Your task to perform on an android device: choose inbox layout in the gmail app Image 0: 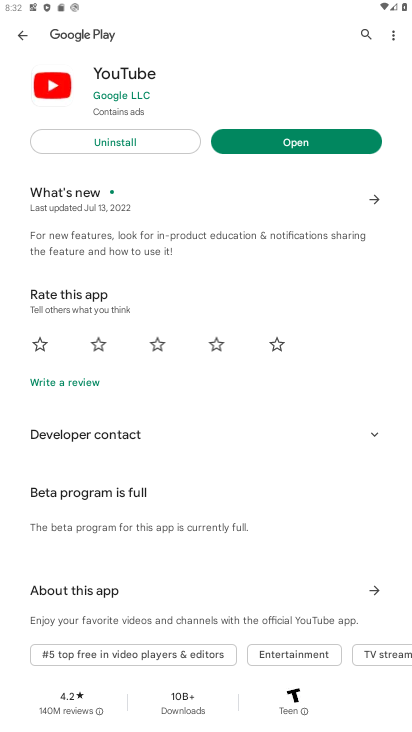
Step 0: press home button
Your task to perform on an android device: choose inbox layout in the gmail app Image 1: 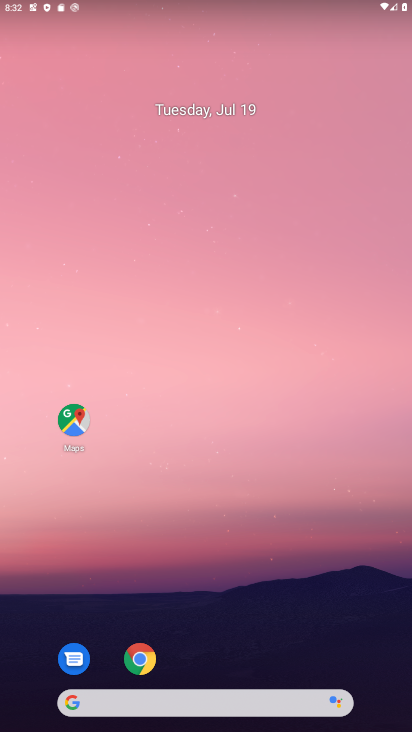
Step 1: drag from (157, 687) to (152, 202)
Your task to perform on an android device: choose inbox layout in the gmail app Image 2: 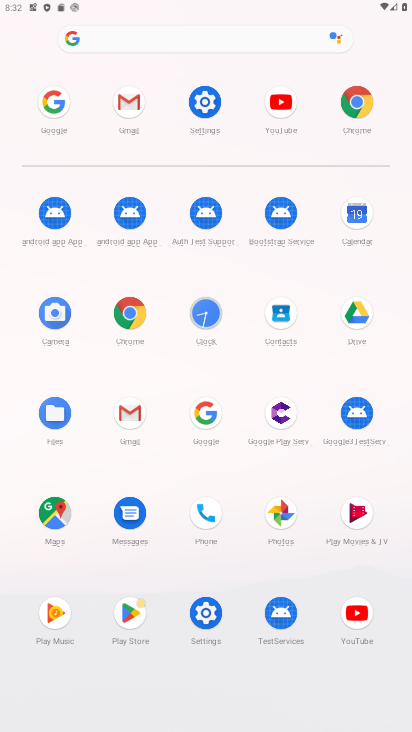
Step 2: click (126, 105)
Your task to perform on an android device: choose inbox layout in the gmail app Image 3: 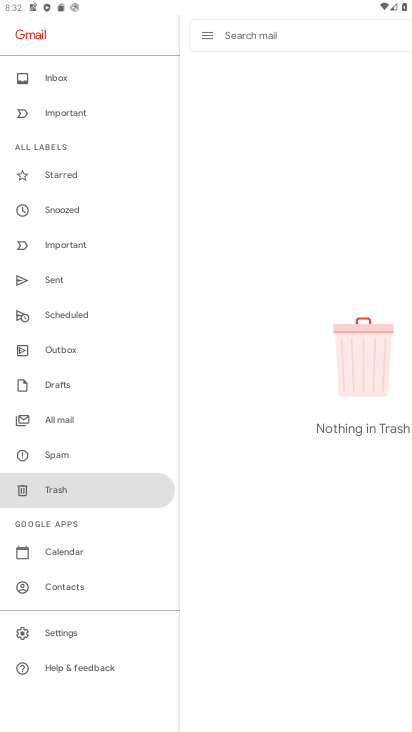
Step 3: click (61, 627)
Your task to perform on an android device: choose inbox layout in the gmail app Image 4: 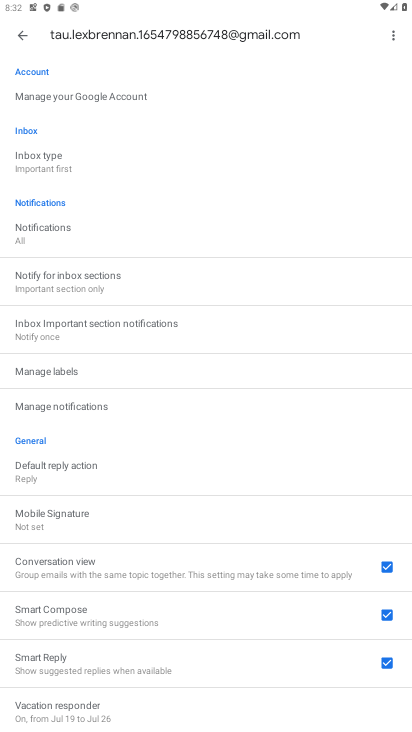
Step 4: click (54, 159)
Your task to perform on an android device: choose inbox layout in the gmail app Image 5: 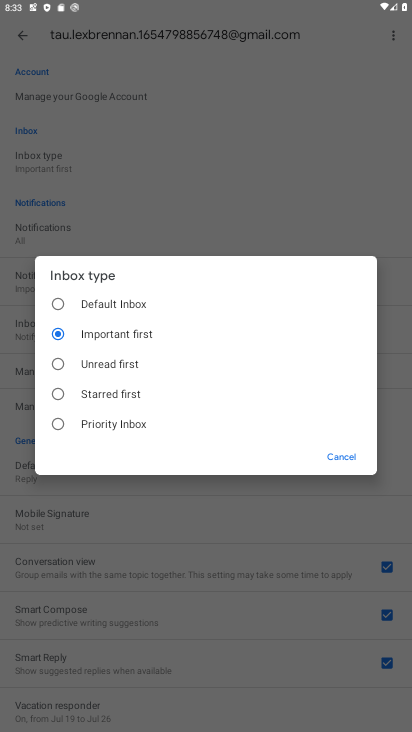
Step 5: click (109, 422)
Your task to perform on an android device: choose inbox layout in the gmail app Image 6: 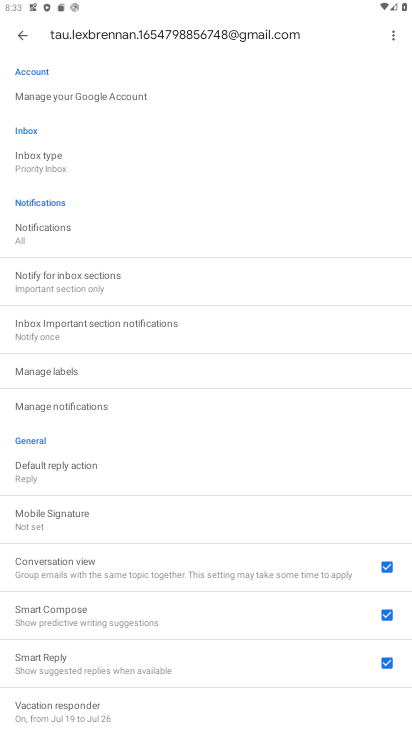
Step 6: task complete